Your task to perform on an android device: Go to eBay Image 0: 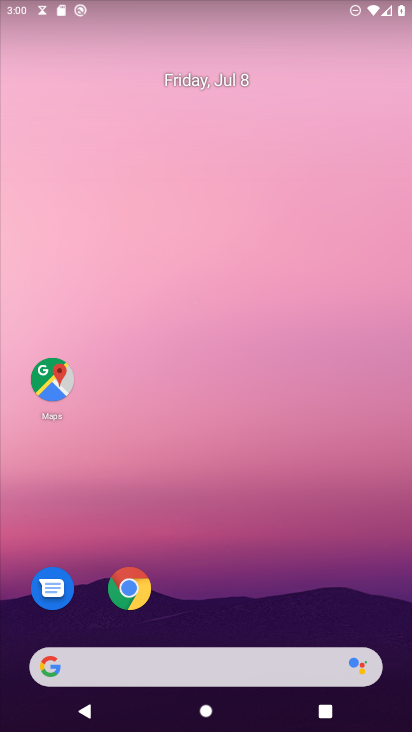
Step 0: click (236, 128)
Your task to perform on an android device: Go to eBay Image 1: 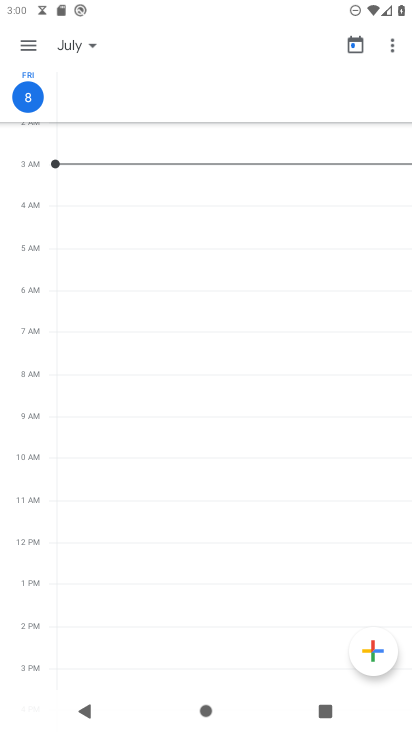
Step 1: press home button
Your task to perform on an android device: Go to eBay Image 2: 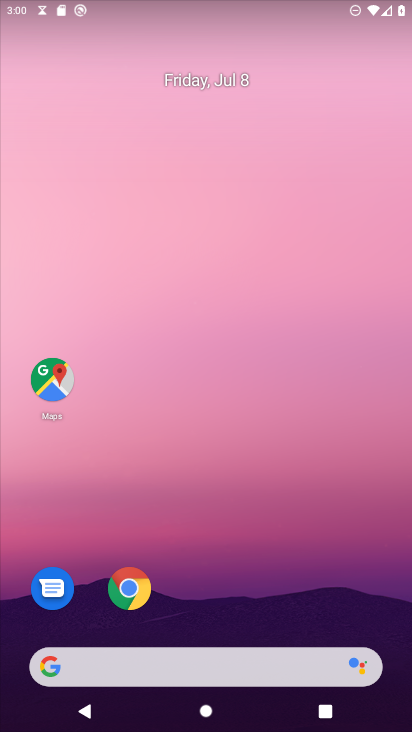
Step 2: click (130, 599)
Your task to perform on an android device: Go to eBay Image 3: 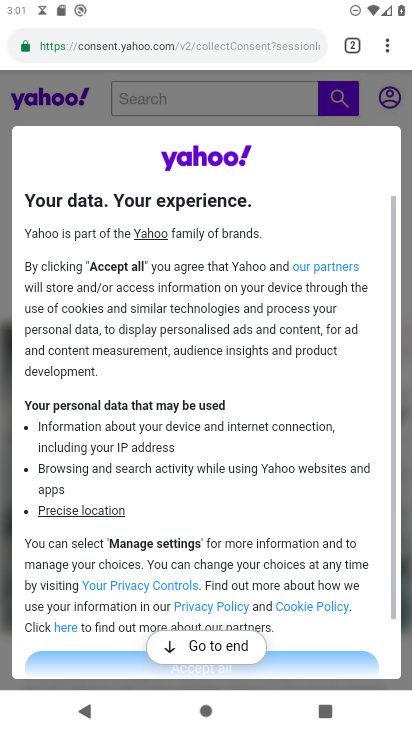
Step 3: press back button
Your task to perform on an android device: Go to eBay Image 4: 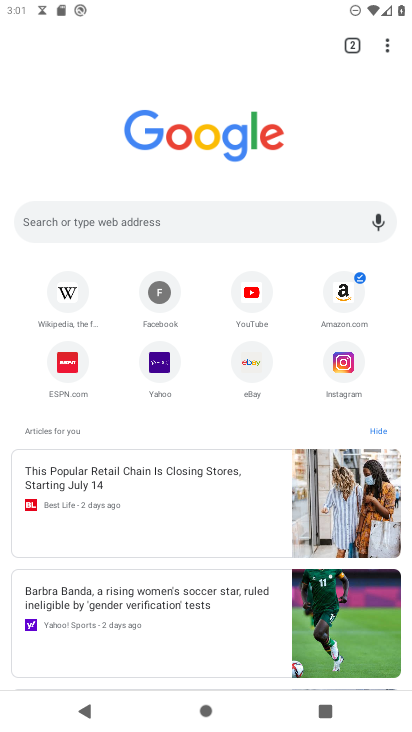
Step 4: click (255, 369)
Your task to perform on an android device: Go to eBay Image 5: 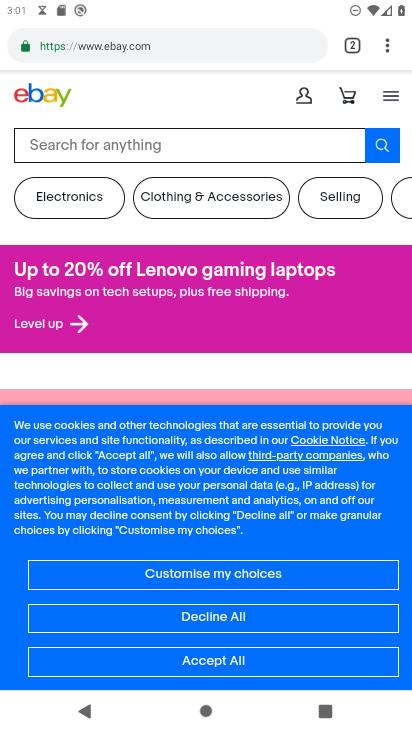
Step 5: task complete